Your task to perform on an android device: change notifications settings Image 0: 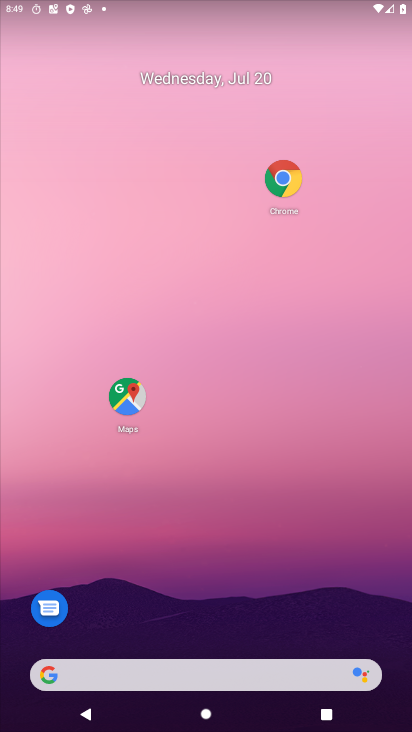
Step 0: drag from (233, 456) to (181, 49)
Your task to perform on an android device: change notifications settings Image 1: 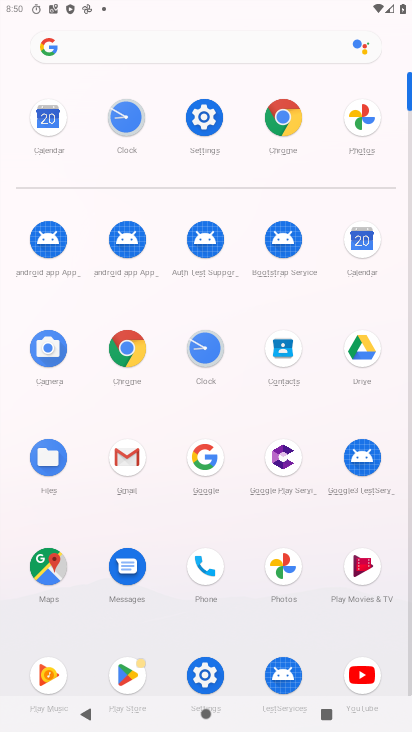
Step 1: click (195, 680)
Your task to perform on an android device: change notifications settings Image 2: 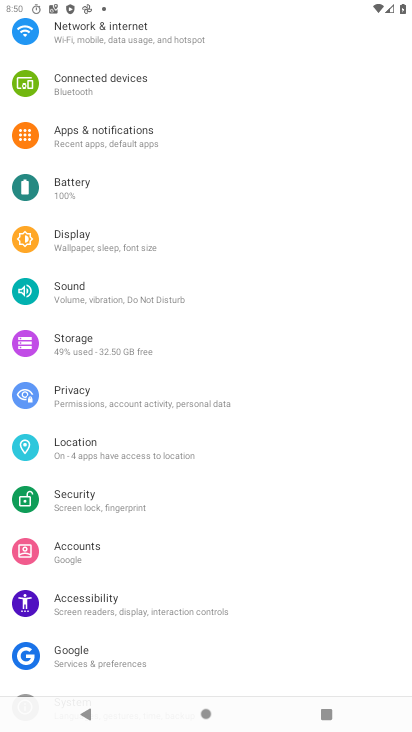
Step 2: click (175, 150)
Your task to perform on an android device: change notifications settings Image 3: 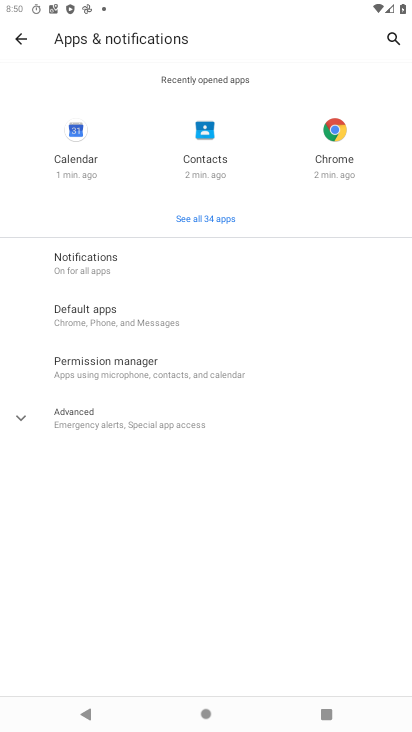
Step 3: click (178, 260)
Your task to perform on an android device: change notifications settings Image 4: 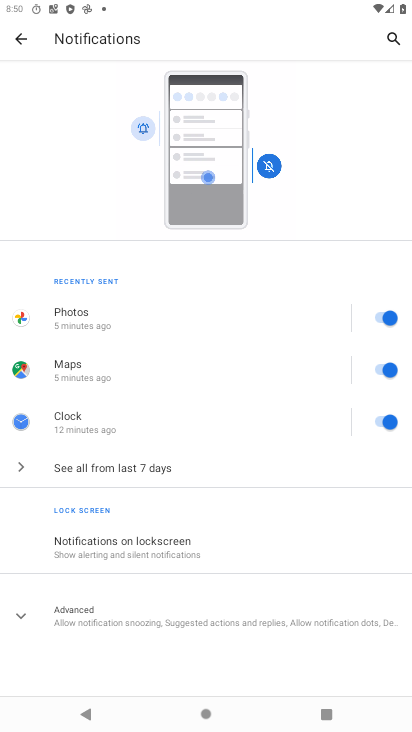
Step 4: click (384, 326)
Your task to perform on an android device: change notifications settings Image 5: 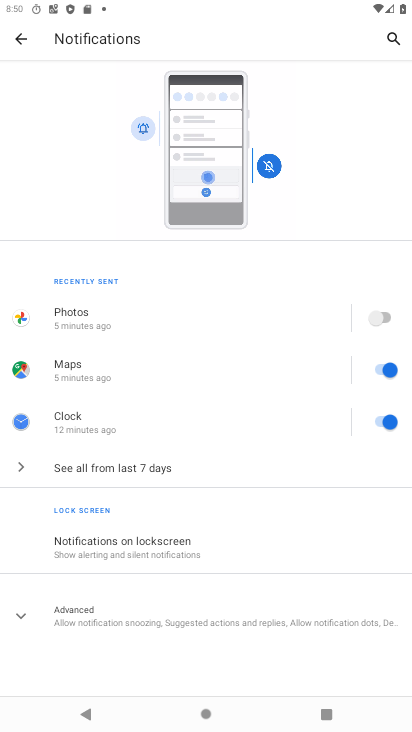
Step 5: task complete